Your task to perform on an android device: toggle translation in the chrome app Image 0: 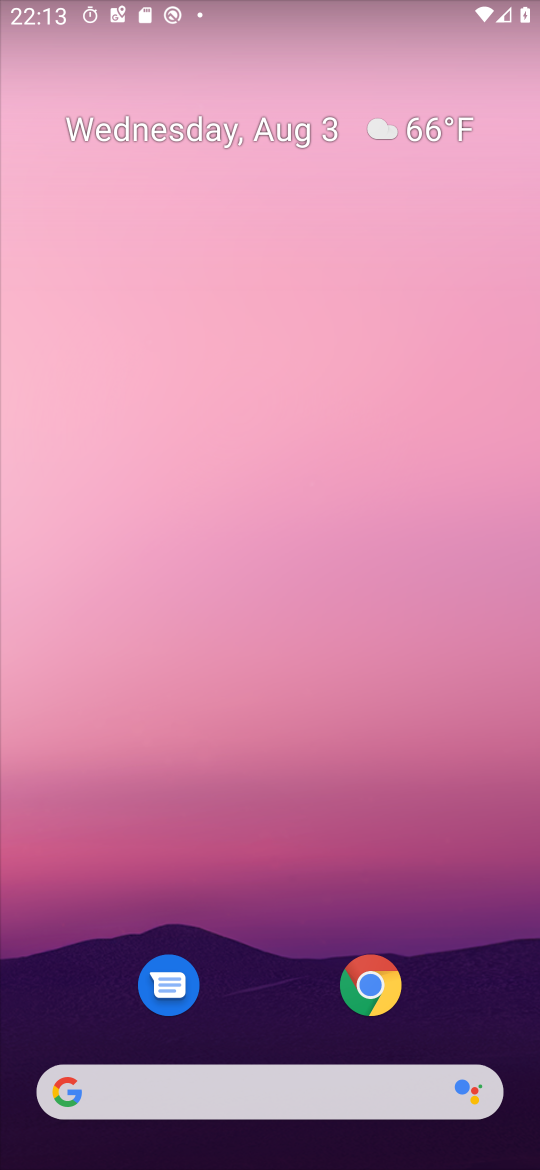
Step 0: click (348, 973)
Your task to perform on an android device: toggle translation in the chrome app Image 1: 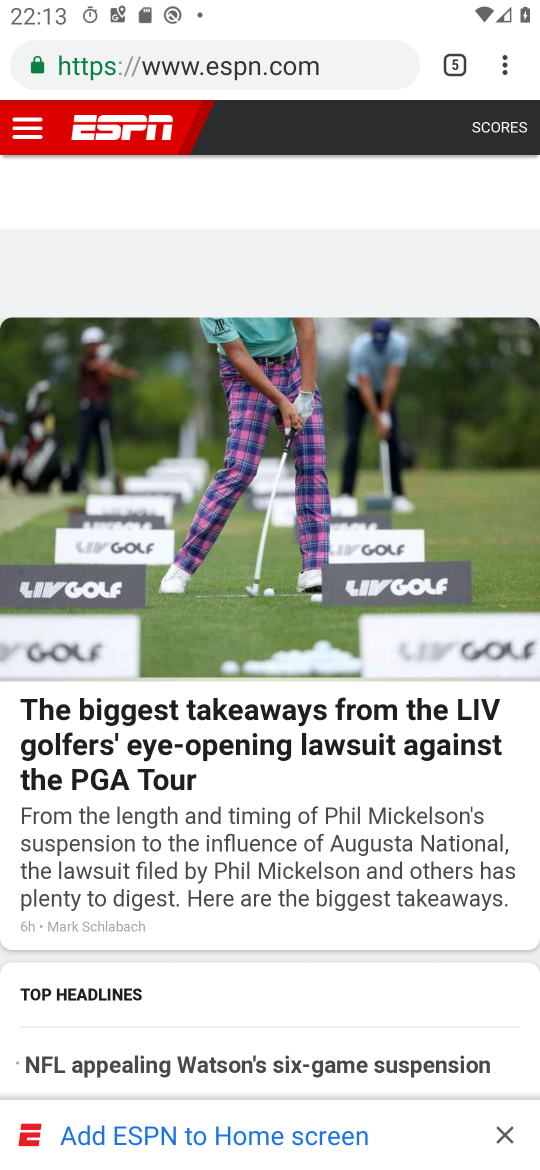
Step 1: click (516, 81)
Your task to perform on an android device: toggle translation in the chrome app Image 2: 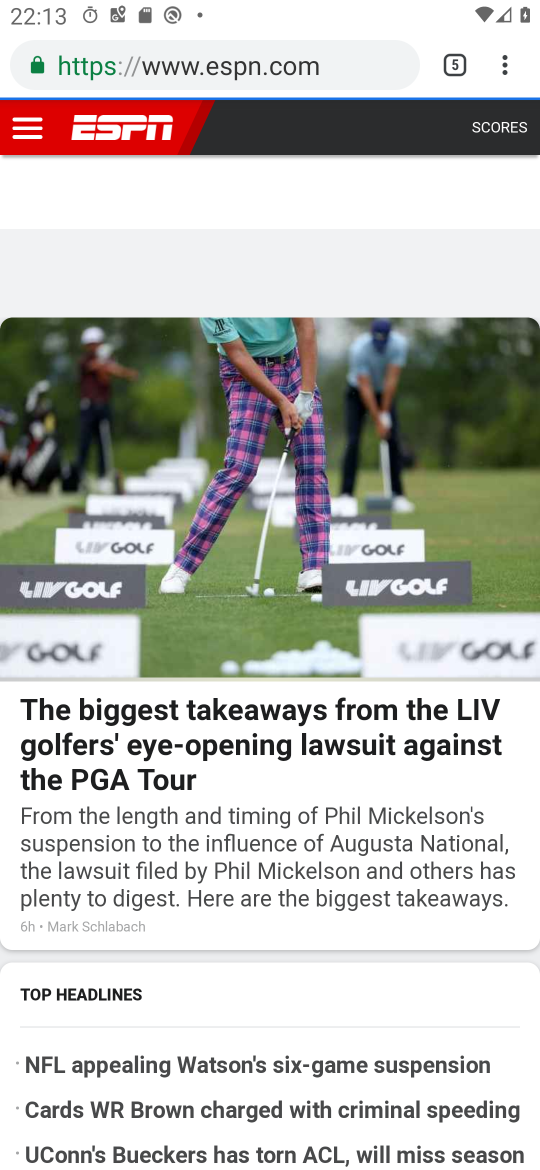
Step 2: drag from (498, 79) to (278, 768)
Your task to perform on an android device: toggle translation in the chrome app Image 3: 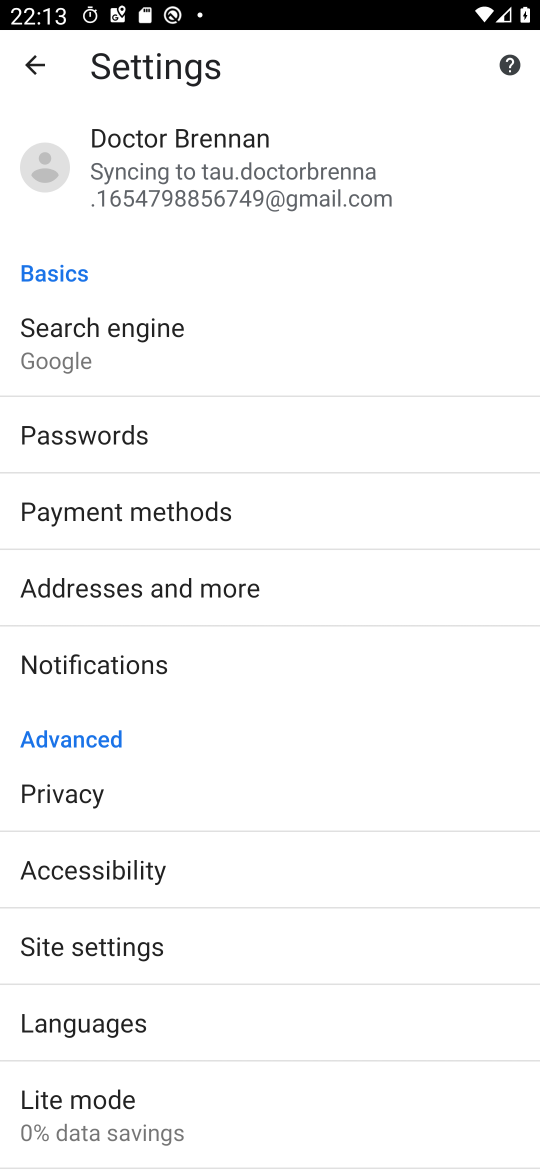
Step 3: click (164, 1037)
Your task to perform on an android device: toggle translation in the chrome app Image 4: 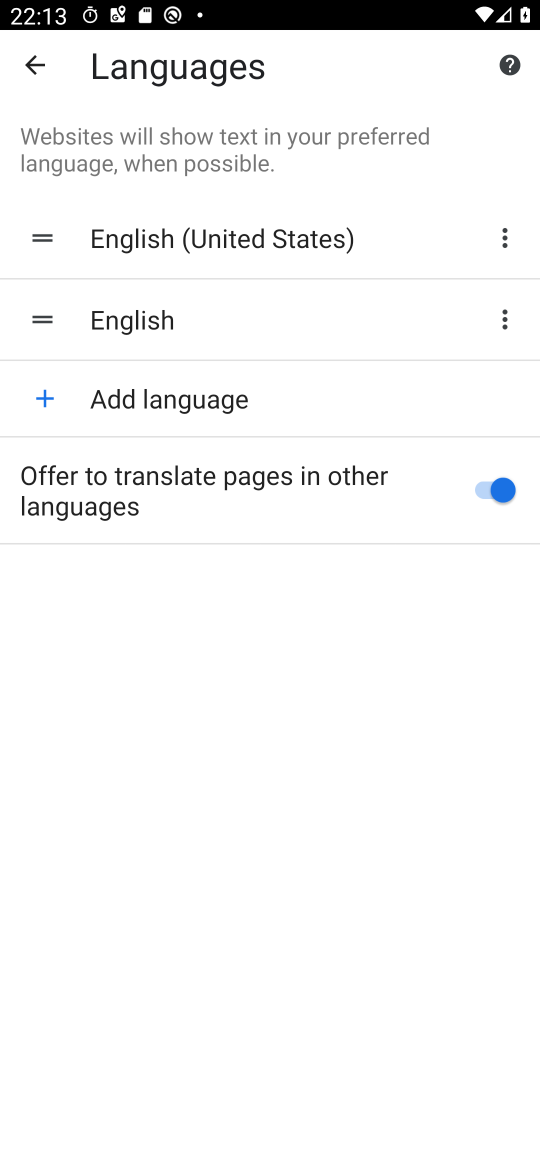
Step 4: click (487, 476)
Your task to perform on an android device: toggle translation in the chrome app Image 5: 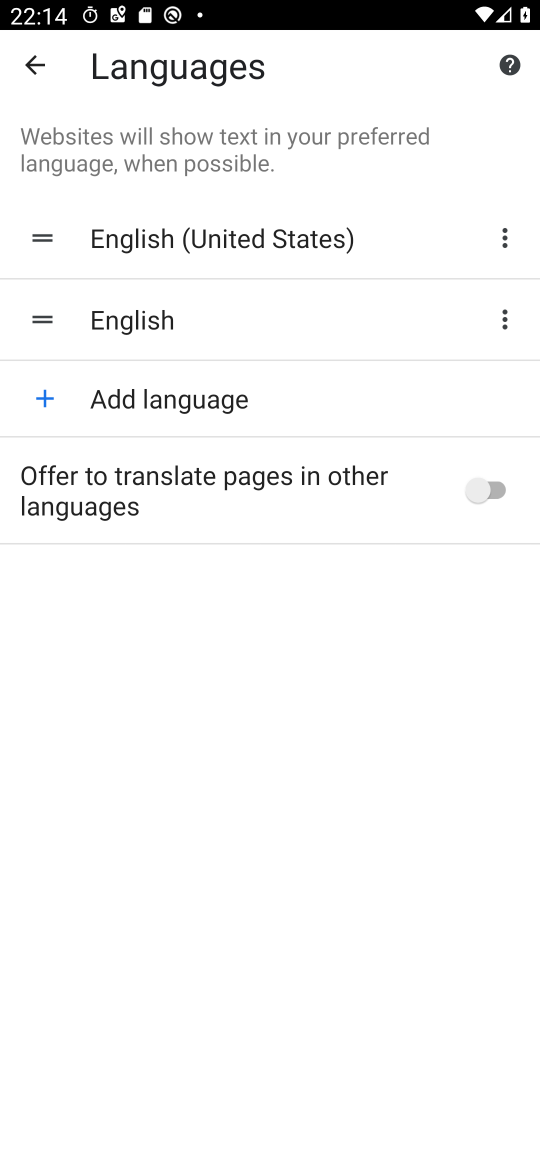
Step 5: task complete